Your task to perform on an android device: check battery use Image 0: 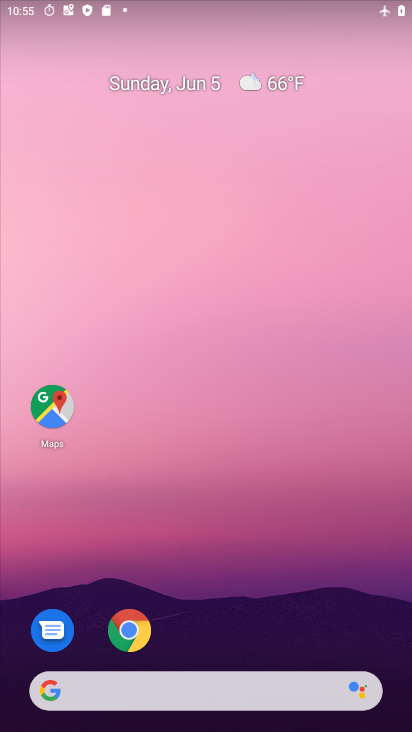
Step 0: drag from (200, 723) to (210, 15)
Your task to perform on an android device: check battery use Image 1: 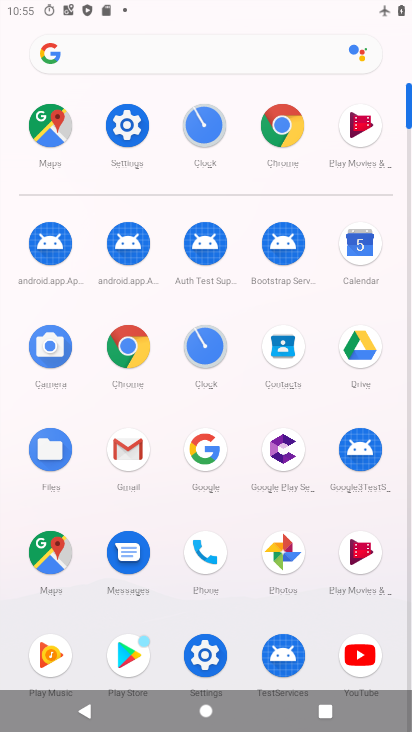
Step 1: click (121, 117)
Your task to perform on an android device: check battery use Image 2: 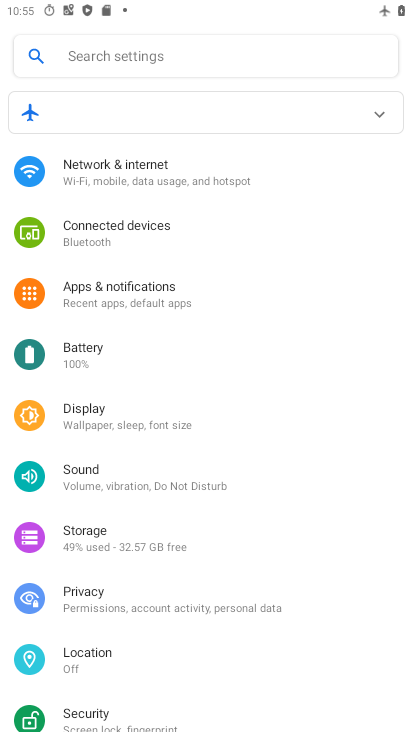
Step 2: click (77, 341)
Your task to perform on an android device: check battery use Image 3: 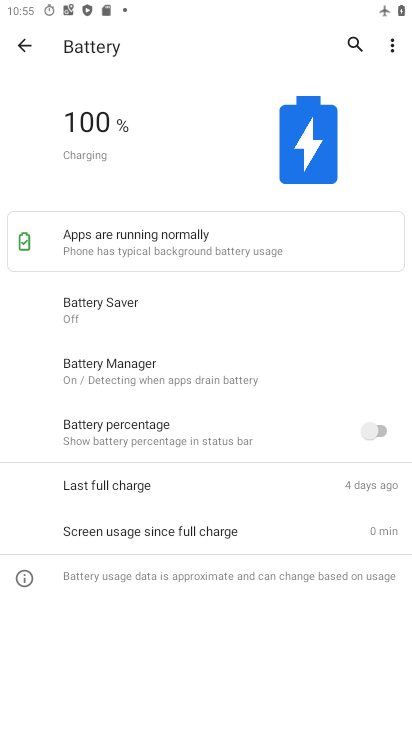
Step 3: click (392, 44)
Your task to perform on an android device: check battery use Image 4: 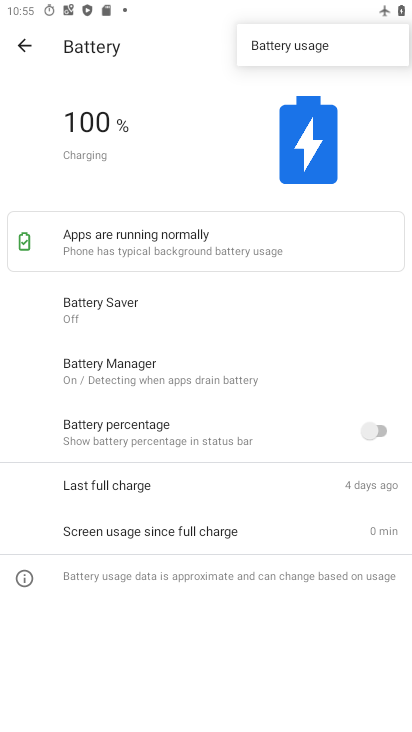
Step 4: click (288, 45)
Your task to perform on an android device: check battery use Image 5: 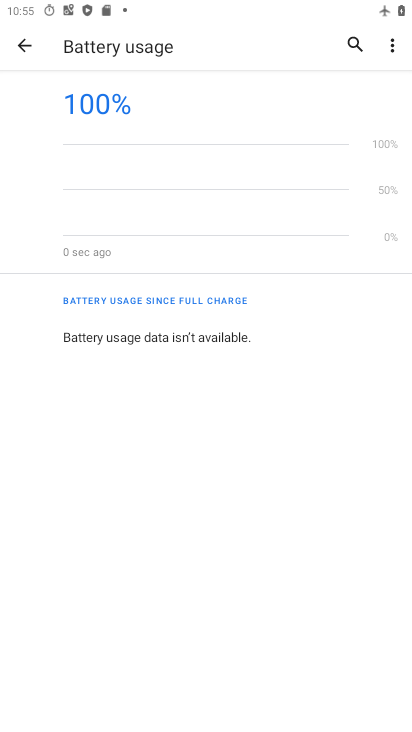
Step 5: task complete